Your task to perform on an android device: Search for the best rated phone case for the iPhone 8. Image 0: 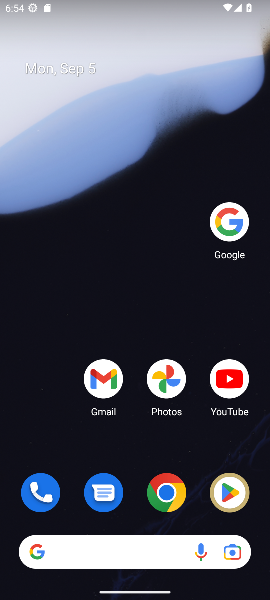
Step 0: click (226, 222)
Your task to perform on an android device: Search for the best rated phone case for the iPhone 8. Image 1: 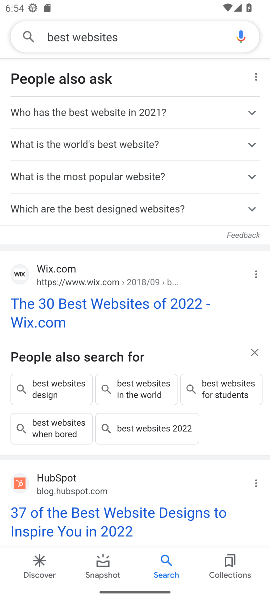
Step 1: click (174, 36)
Your task to perform on an android device: Search for the best rated phone case for the iPhone 8. Image 2: 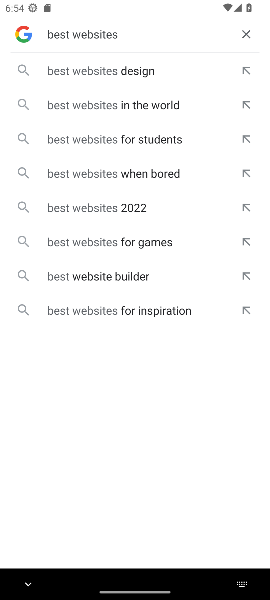
Step 2: click (243, 30)
Your task to perform on an android device: Search for the best rated phone case for the iPhone 8. Image 3: 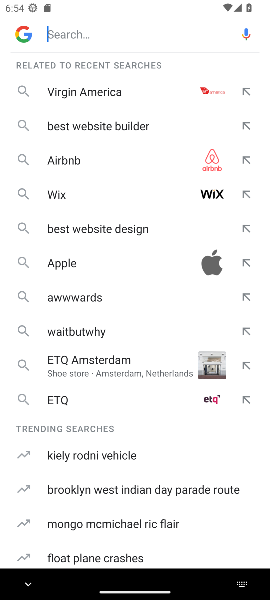
Step 3: click (125, 27)
Your task to perform on an android device: Search for the best rated phone case for the iPhone 8. Image 4: 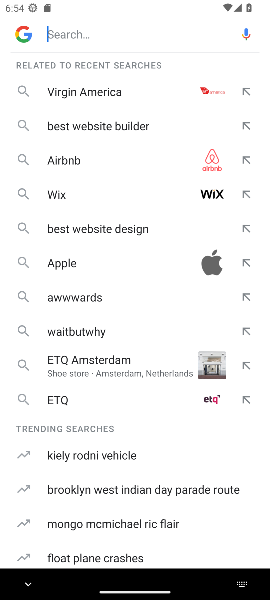
Step 4: type " the best rated phone case for the iPhone 8 "
Your task to perform on an android device: Search for the best rated phone case for the iPhone 8. Image 5: 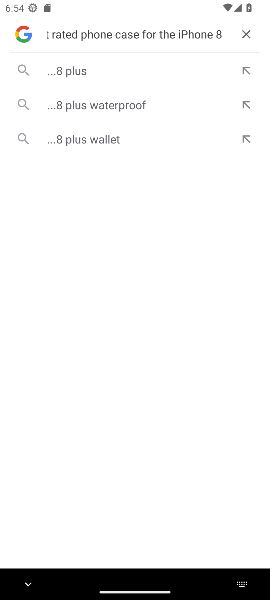
Step 5: click (49, 63)
Your task to perform on an android device: Search for the best rated phone case for the iPhone 8. Image 6: 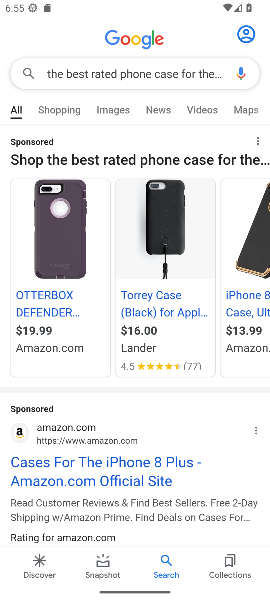
Step 6: task complete